Your task to perform on an android device: toggle wifi Image 0: 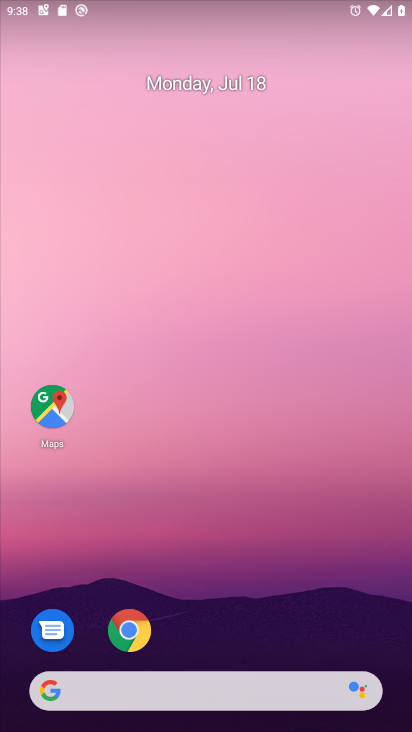
Step 0: drag from (205, 641) to (207, 237)
Your task to perform on an android device: toggle wifi Image 1: 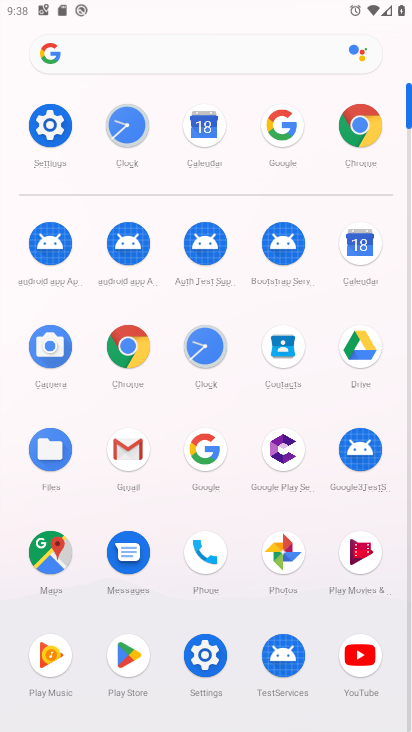
Step 1: click (37, 137)
Your task to perform on an android device: toggle wifi Image 2: 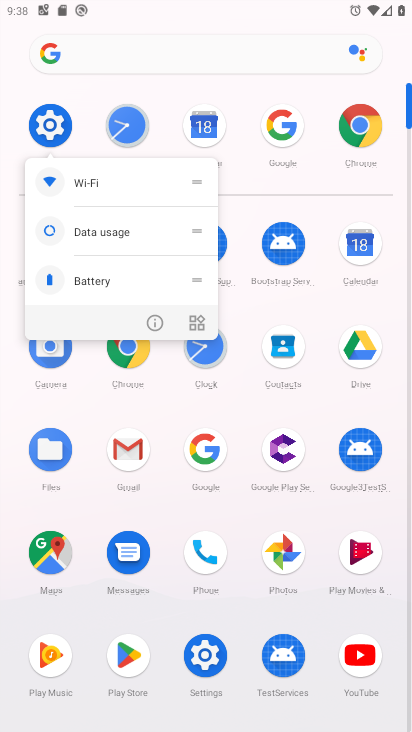
Step 2: click (38, 140)
Your task to perform on an android device: toggle wifi Image 3: 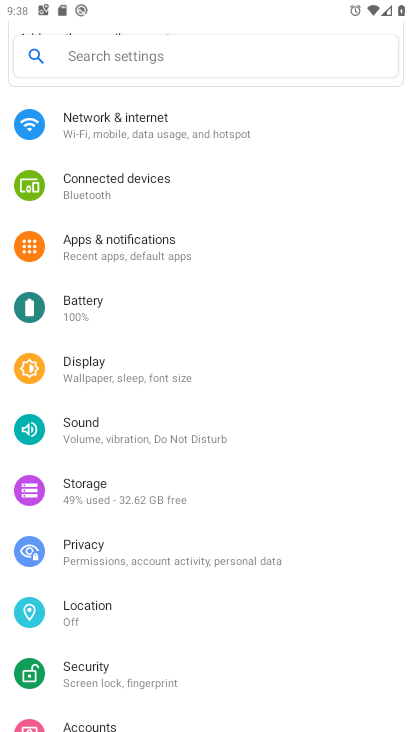
Step 3: click (56, 139)
Your task to perform on an android device: toggle wifi Image 4: 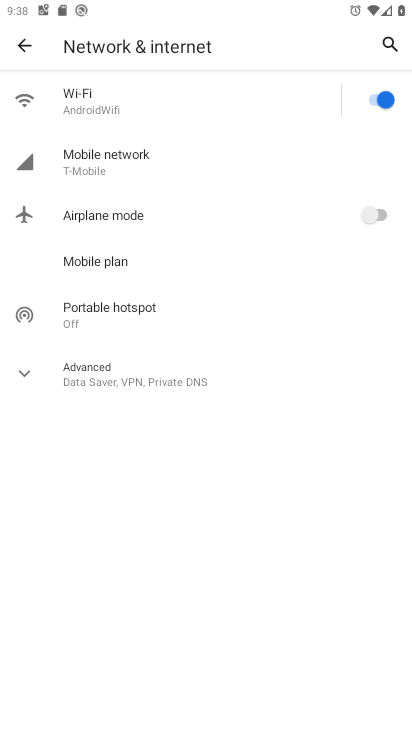
Step 4: click (356, 106)
Your task to perform on an android device: toggle wifi Image 5: 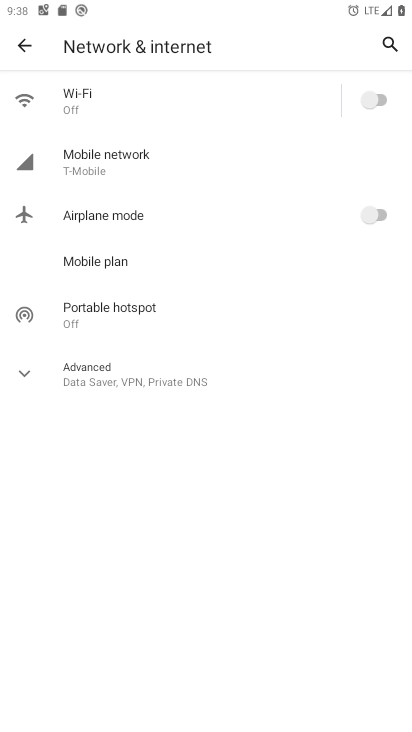
Step 5: task complete